Your task to perform on an android device: change your default location settings in chrome Image 0: 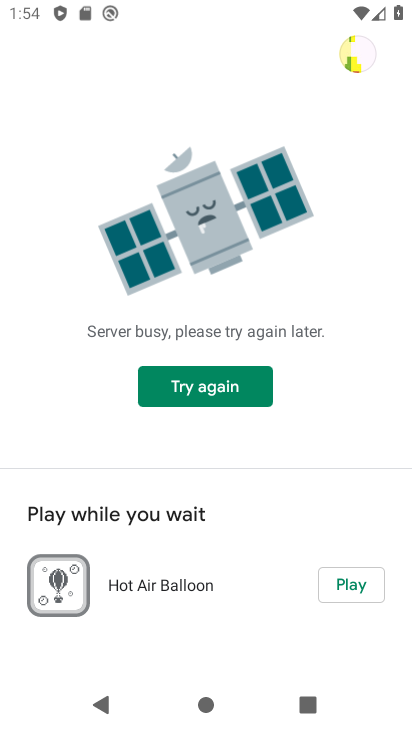
Step 0: press home button
Your task to perform on an android device: change your default location settings in chrome Image 1: 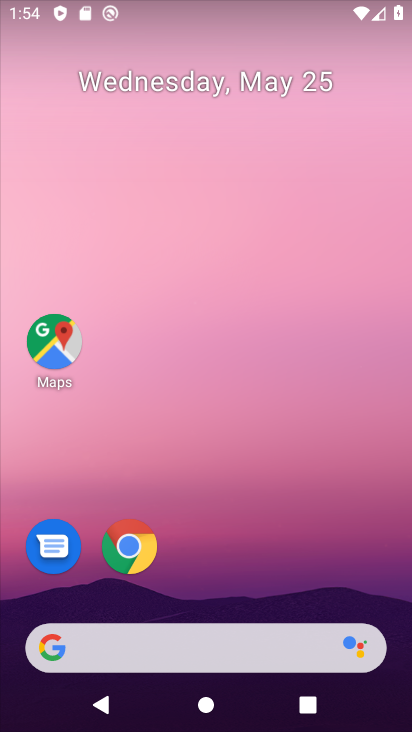
Step 1: click (130, 547)
Your task to perform on an android device: change your default location settings in chrome Image 2: 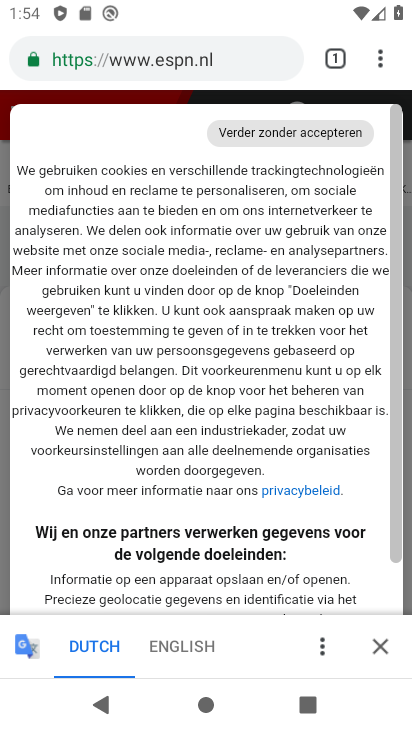
Step 2: click (380, 54)
Your task to perform on an android device: change your default location settings in chrome Image 3: 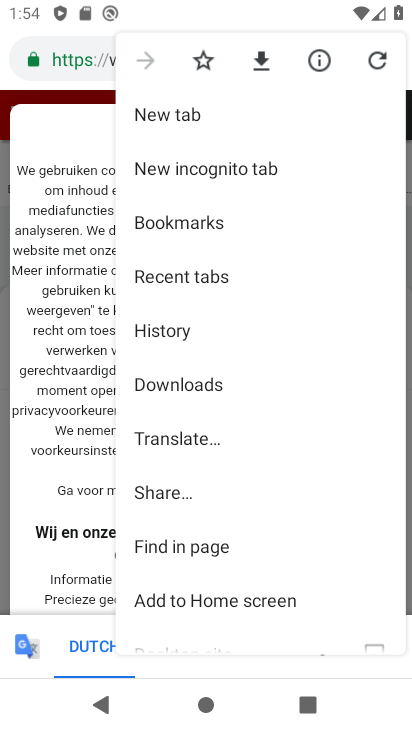
Step 3: drag from (174, 526) to (220, 432)
Your task to perform on an android device: change your default location settings in chrome Image 4: 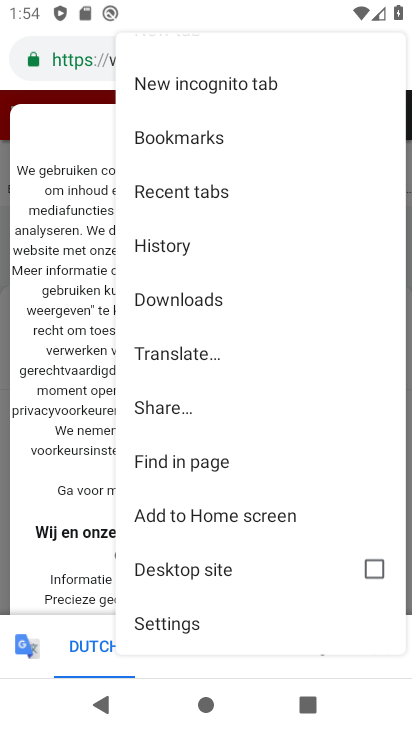
Step 4: drag from (171, 538) to (231, 441)
Your task to perform on an android device: change your default location settings in chrome Image 5: 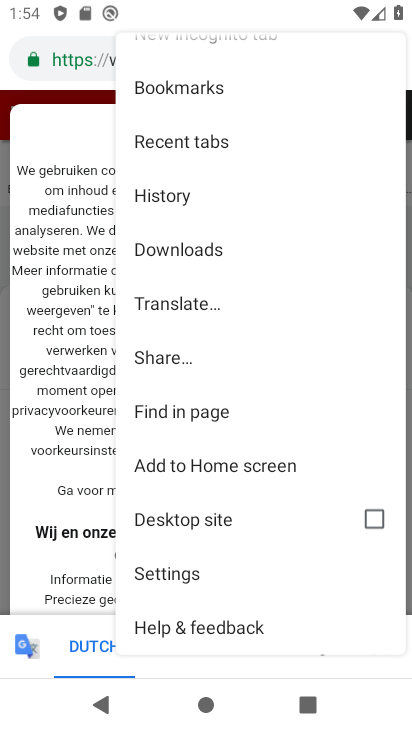
Step 5: drag from (219, 543) to (270, 438)
Your task to perform on an android device: change your default location settings in chrome Image 6: 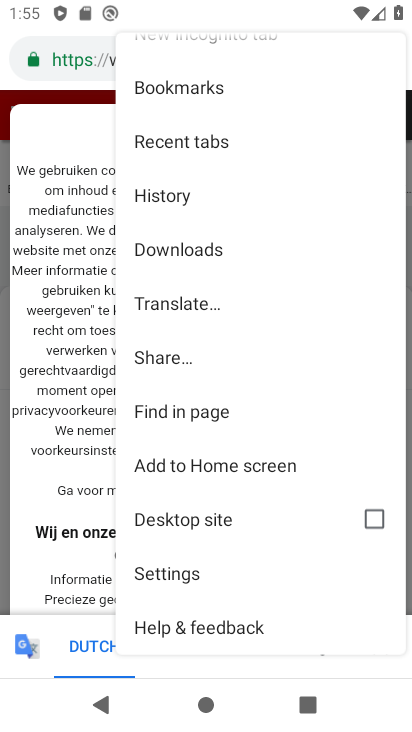
Step 6: click (173, 576)
Your task to perform on an android device: change your default location settings in chrome Image 7: 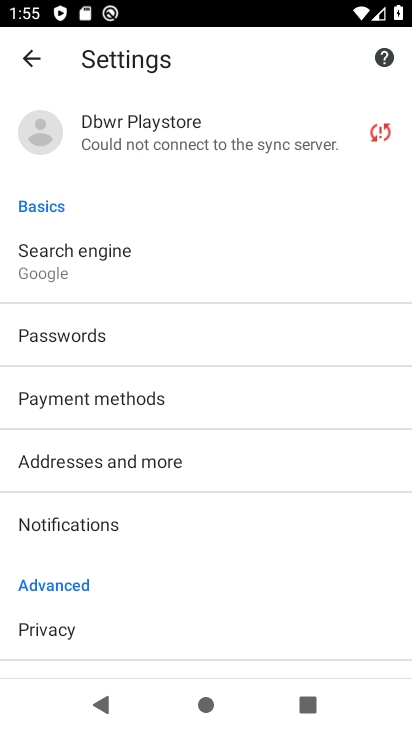
Step 7: drag from (125, 610) to (215, 479)
Your task to perform on an android device: change your default location settings in chrome Image 8: 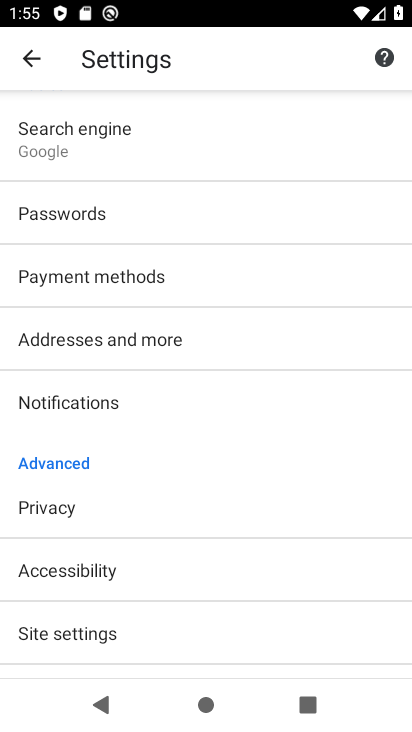
Step 8: click (93, 639)
Your task to perform on an android device: change your default location settings in chrome Image 9: 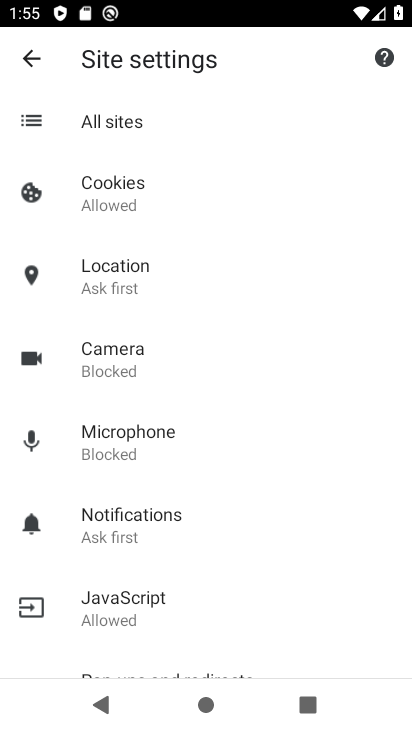
Step 9: click (138, 278)
Your task to perform on an android device: change your default location settings in chrome Image 10: 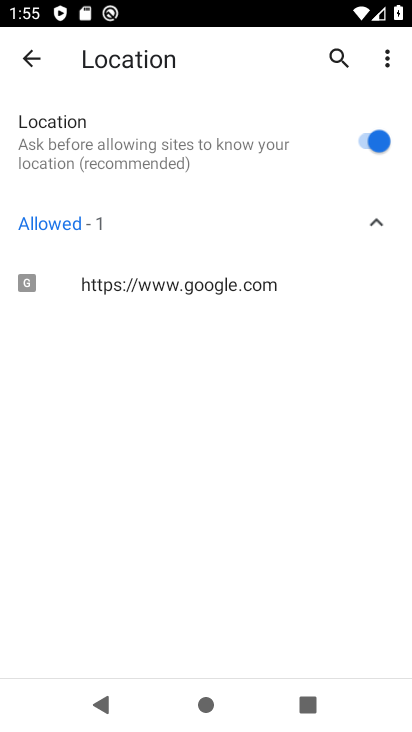
Step 10: click (371, 147)
Your task to perform on an android device: change your default location settings in chrome Image 11: 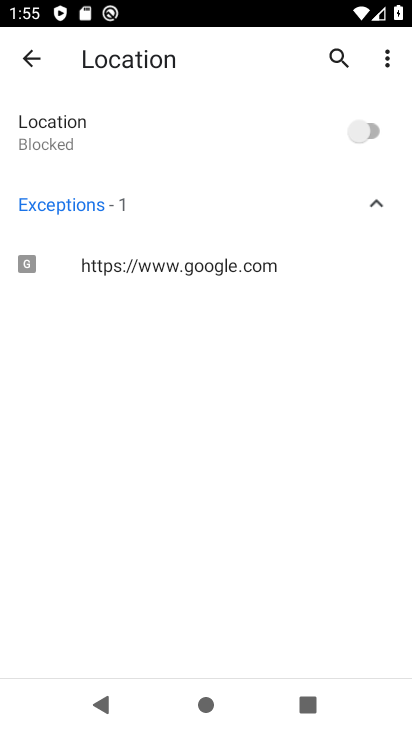
Step 11: task complete